Your task to perform on an android device: Empty the shopping cart on newegg. Add acer nitro to the cart on newegg Image 0: 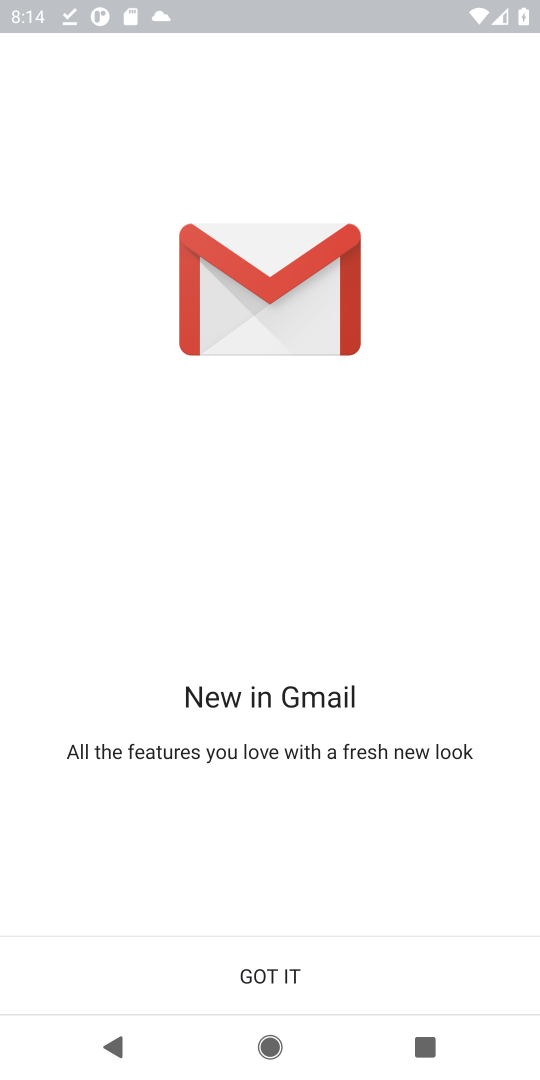
Step 0: click (286, 977)
Your task to perform on an android device: Empty the shopping cart on newegg. Add acer nitro to the cart on newegg Image 1: 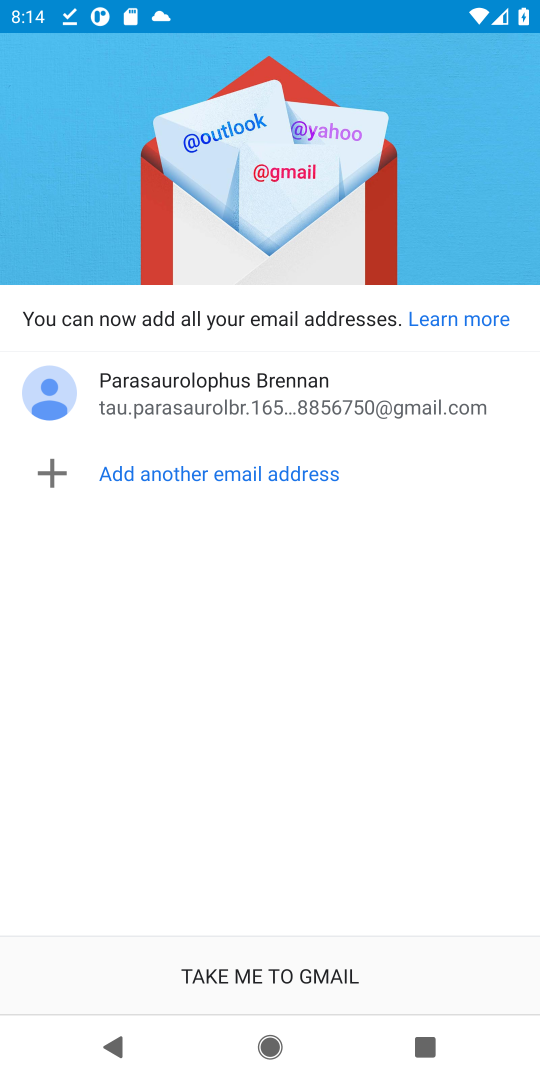
Step 1: press home button
Your task to perform on an android device: Empty the shopping cart on newegg. Add acer nitro to the cart on newegg Image 2: 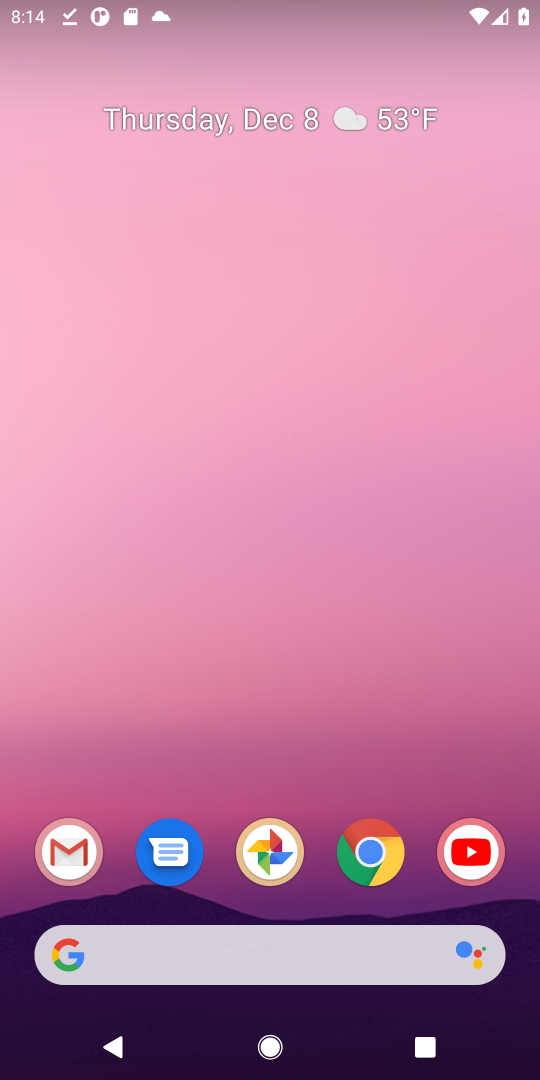
Step 2: click (324, 978)
Your task to perform on an android device: Empty the shopping cart on newegg. Add acer nitro to the cart on newegg Image 3: 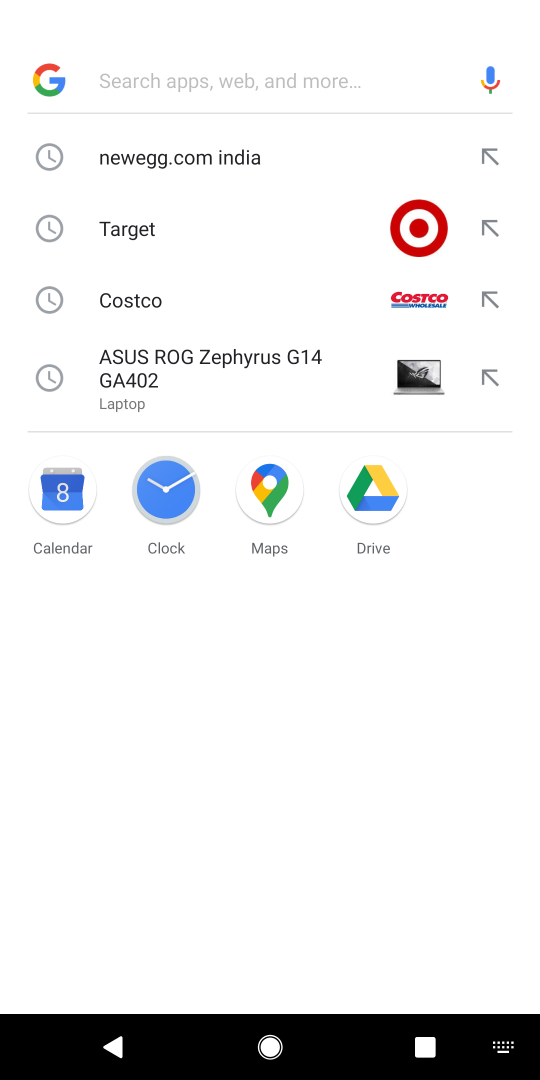
Step 3: type "newegg.com"
Your task to perform on an android device: Empty the shopping cart on newegg. Add acer nitro to the cart on newegg Image 4: 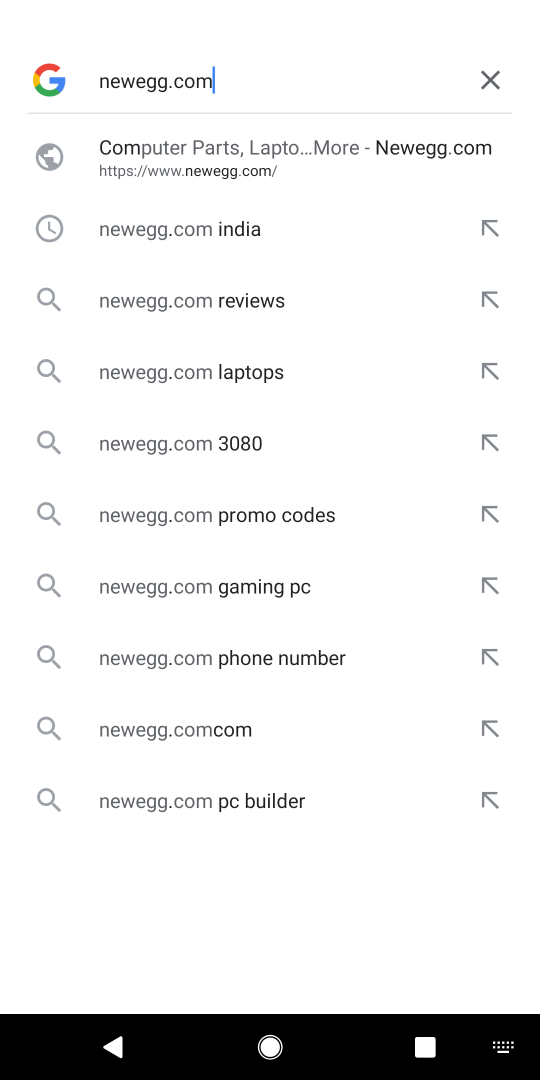
Step 4: click (154, 169)
Your task to perform on an android device: Empty the shopping cart on newegg. Add acer nitro to the cart on newegg Image 5: 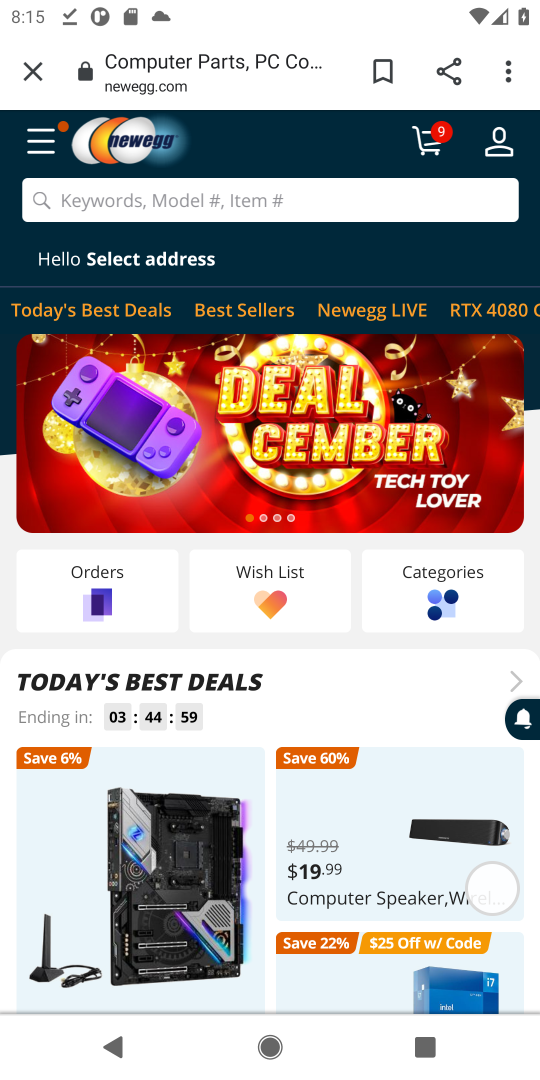
Step 5: click (116, 198)
Your task to perform on an android device: Empty the shopping cart on newegg. Add acer nitro to the cart on newegg Image 6: 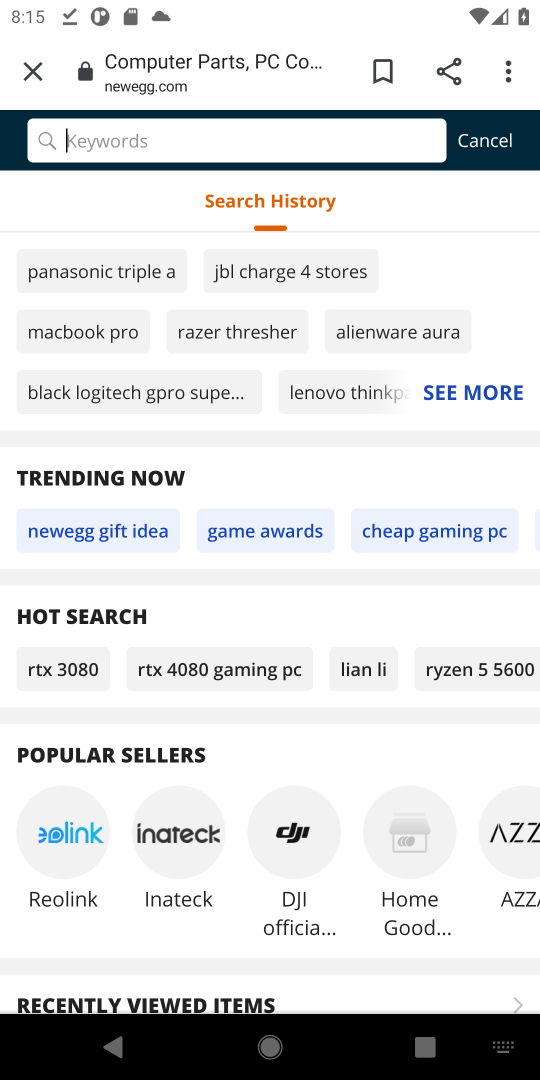
Step 6: type "acer nitro"
Your task to perform on an android device: Empty the shopping cart on newegg. Add acer nitro to the cart on newegg Image 7: 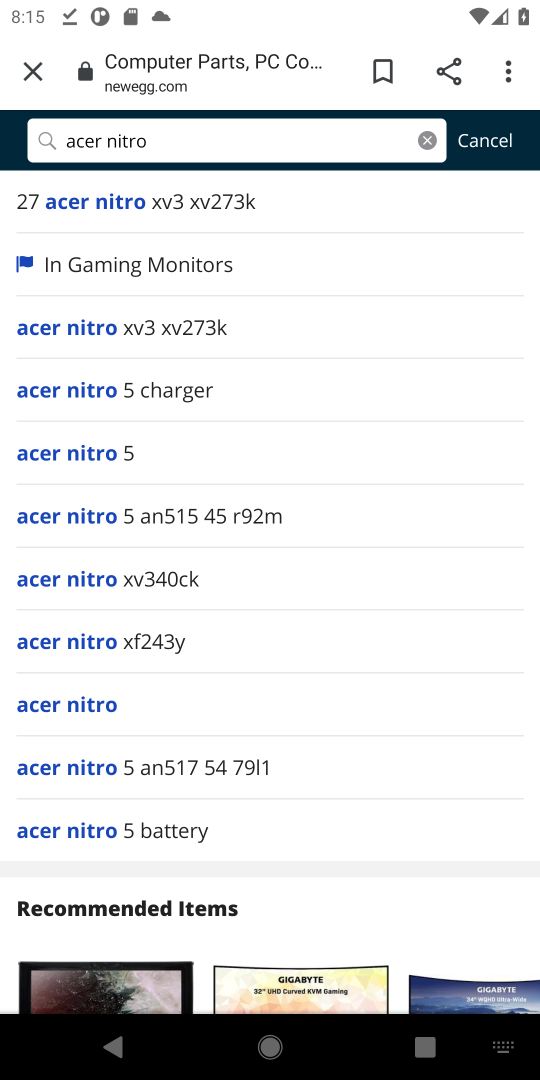
Step 7: click (46, 701)
Your task to perform on an android device: Empty the shopping cart on newegg. Add acer nitro to the cart on newegg Image 8: 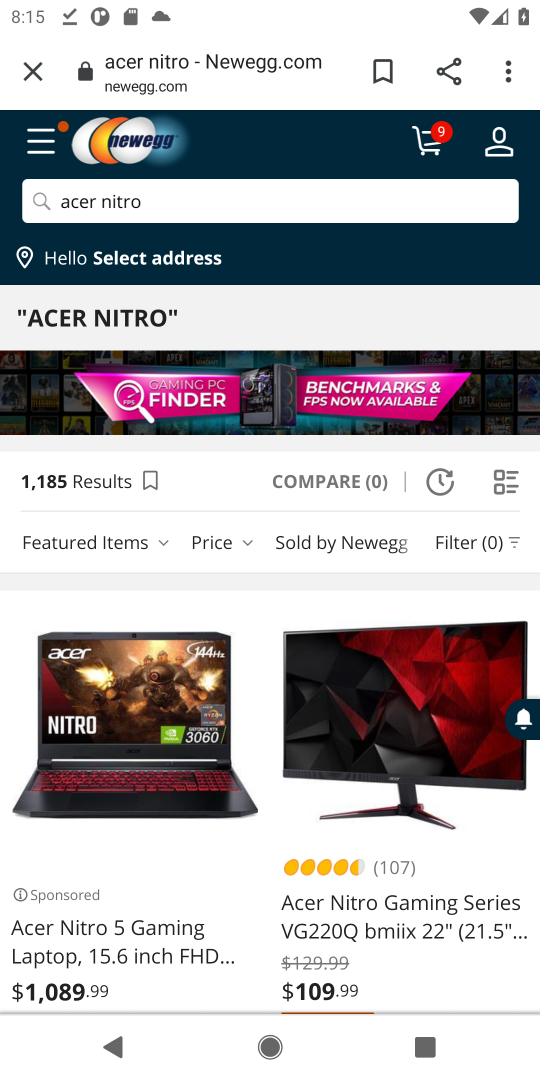
Step 8: click (174, 955)
Your task to perform on an android device: Empty the shopping cart on newegg. Add acer nitro to the cart on newegg Image 9: 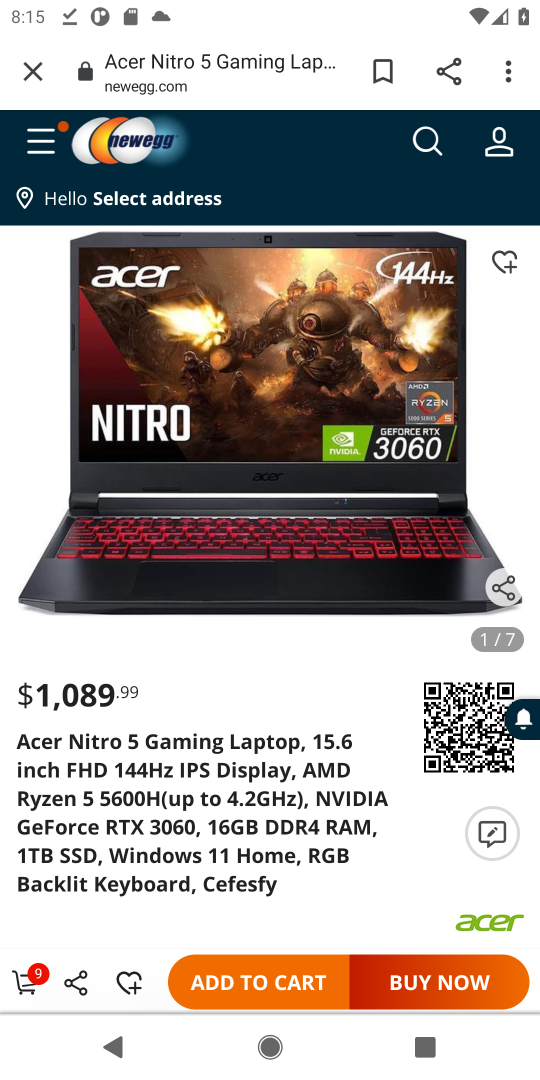
Step 9: click (206, 964)
Your task to perform on an android device: Empty the shopping cart on newegg. Add acer nitro to the cart on newegg Image 10: 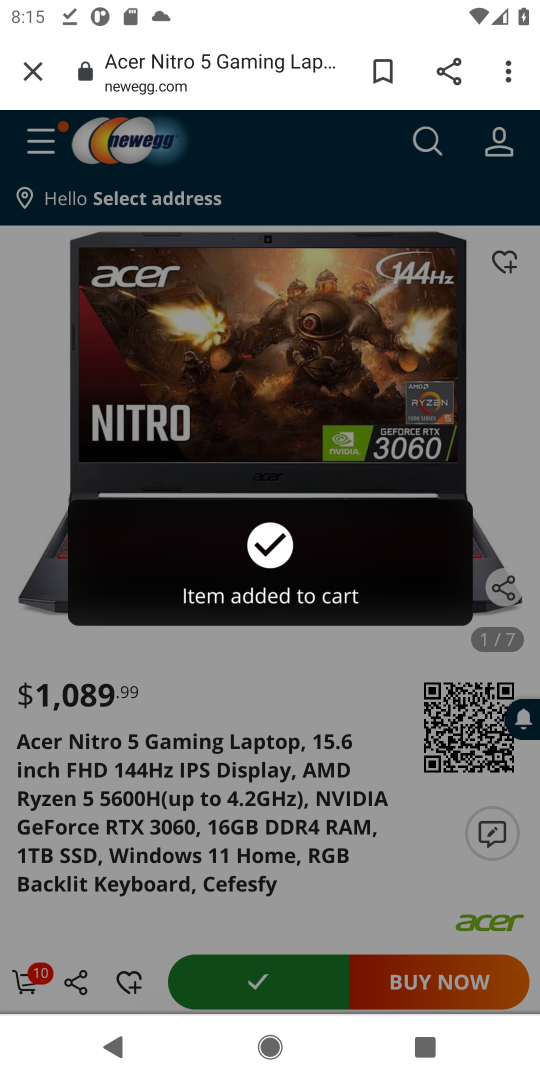
Step 10: task complete